Your task to perform on an android device: find photos in the google photos app Image 0: 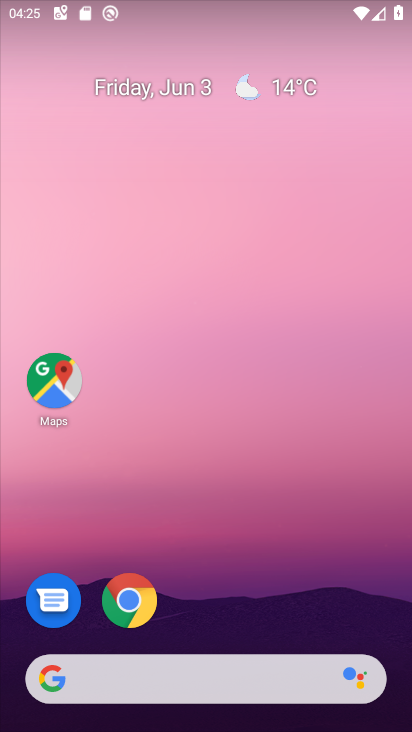
Step 0: drag from (290, 537) to (294, 140)
Your task to perform on an android device: find photos in the google photos app Image 1: 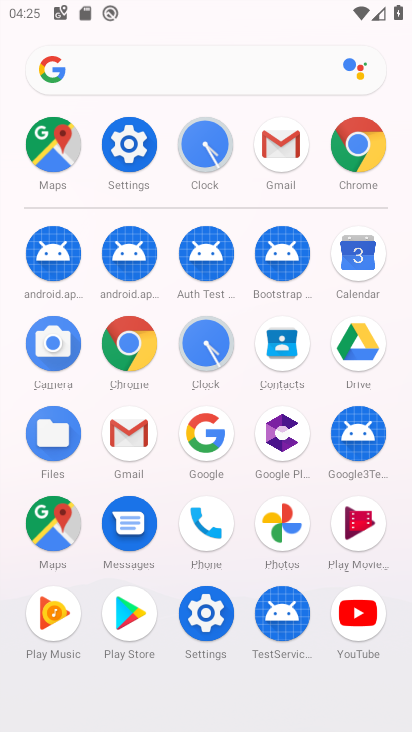
Step 1: click (286, 532)
Your task to perform on an android device: find photos in the google photos app Image 2: 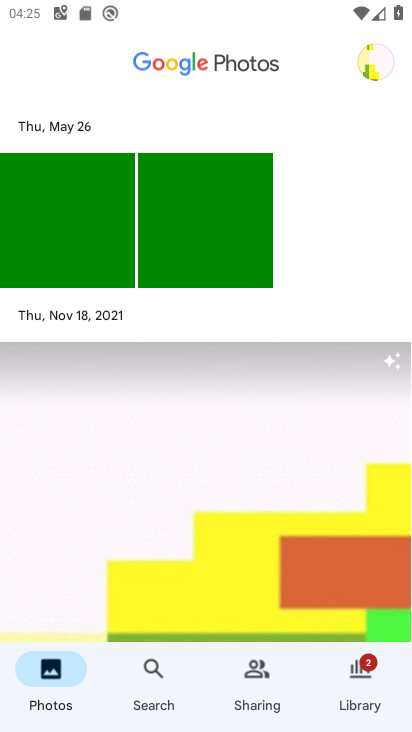
Step 2: task complete